Your task to perform on an android device: Turn on the flashlight Image 0: 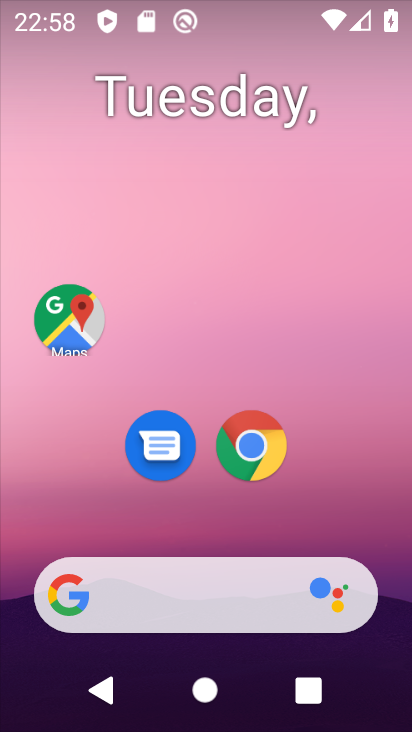
Step 0: drag from (298, 515) to (292, 25)
Your task to perform on an android device: Turn on the flashlight Image 1: 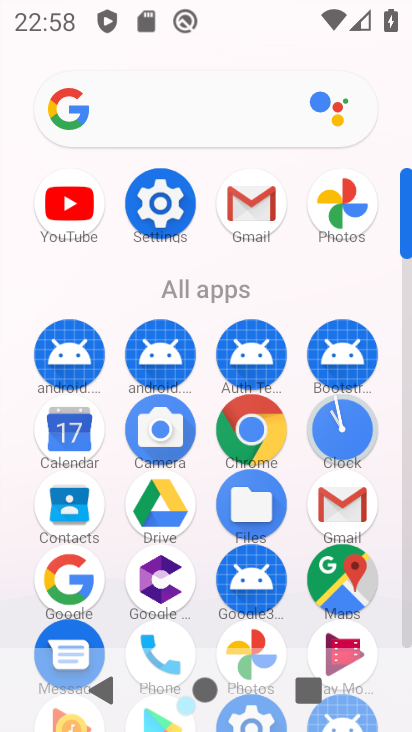
Step 1: click (147, 194)
Your task to perform on an android device: Turn on the flashlight Image 2: 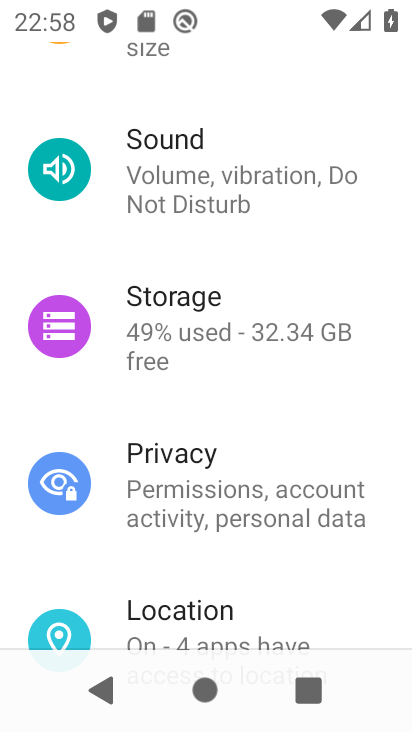
Step 2: task complete